Your task to perform on an android device: Open the calendar app, open the side menu, and click the "Day" option Image 0: 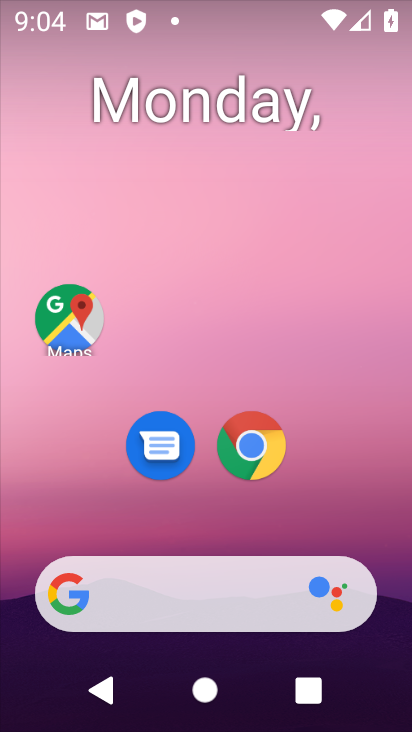
Step 0: drag from (96, 135) to (58, 4)
Your task to perform on an android device: Open the calendar app, open the side menu, and click the "Day" option Image 1: 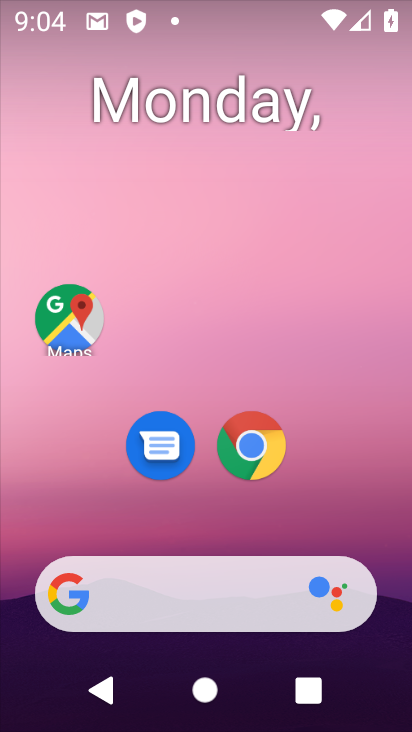
Step 1: drag from (267, 670) to (284, 0)
Your task to perform on an android device: Open the calendar app, open the side menu, and click the "Day" option Image 2: 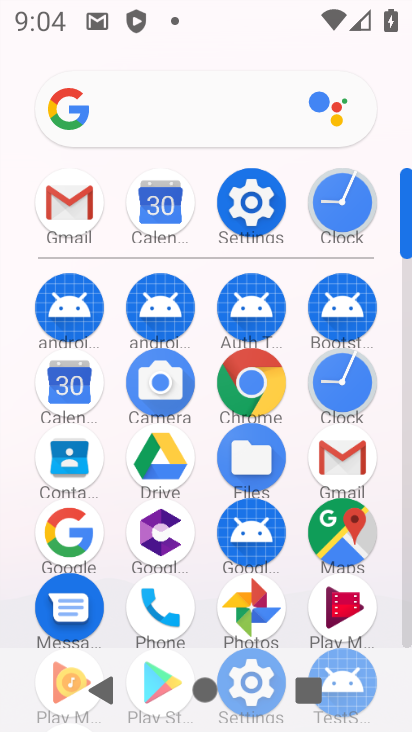
Step 2: click (74, 389)
Your task to perform on an android device: Open the calendar app, open the side menu, and click the "Day" option Image 3: 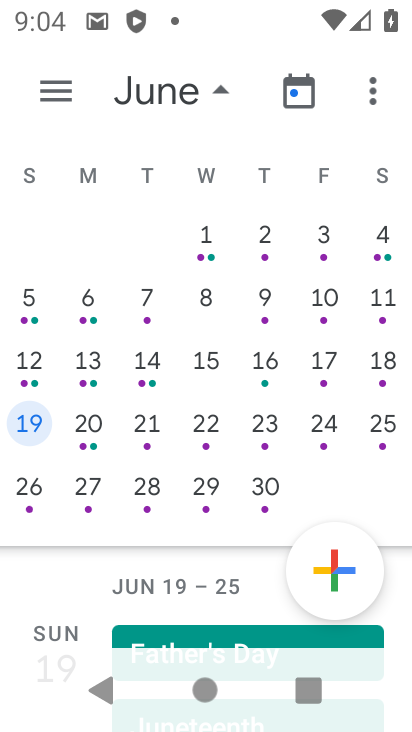
Step 3: click (56, 83)
Your task to perform on an android device: Open the calendar app, open the side menu, and click the "Day" option Image 4: 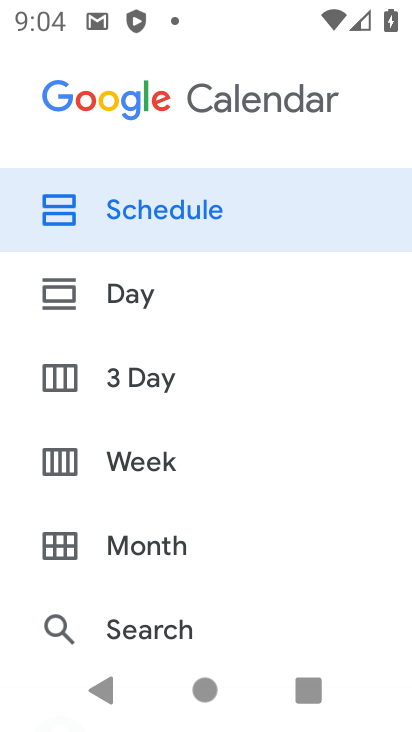
Step 4: click (210, 301)
Your task to perform on an android device: Open the calendar app, open the side menu, and click the "Day" option Image 5: 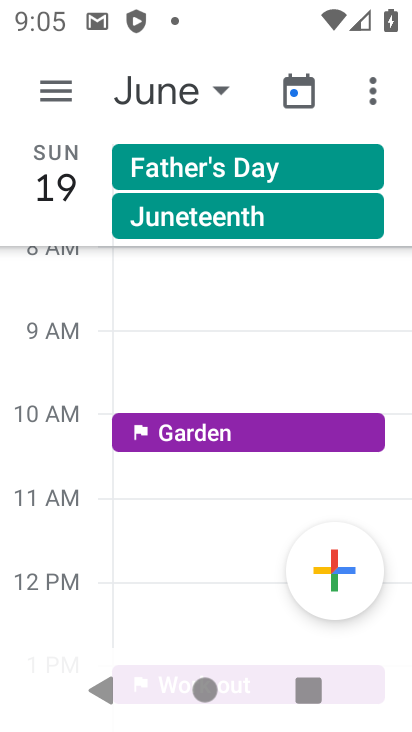
Step 5: task complete